Your task to perform on an android device: change notification settings in the gmail app Image 0: 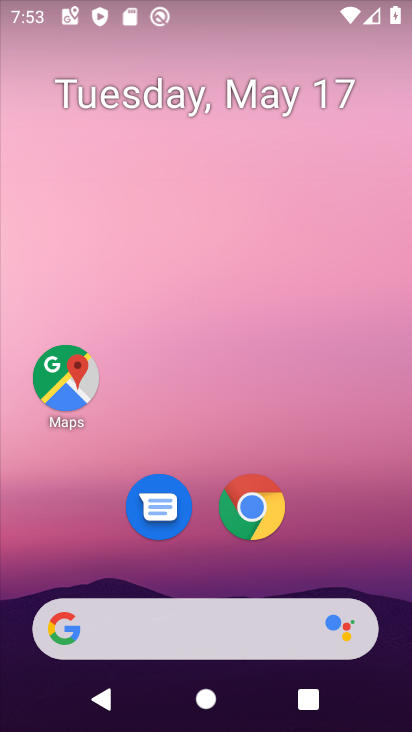
Step 0: drag from (264, 510) to (111, 116)
Your task to perform on an android device: change notification settings in the gmail app Image 1: 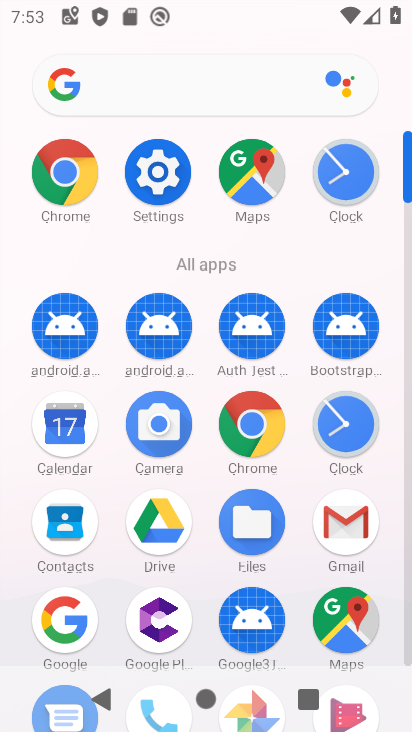
Step 1: click (339, 525)
Your task to perform on an android device: change notification settings in the gmail app Image 2: 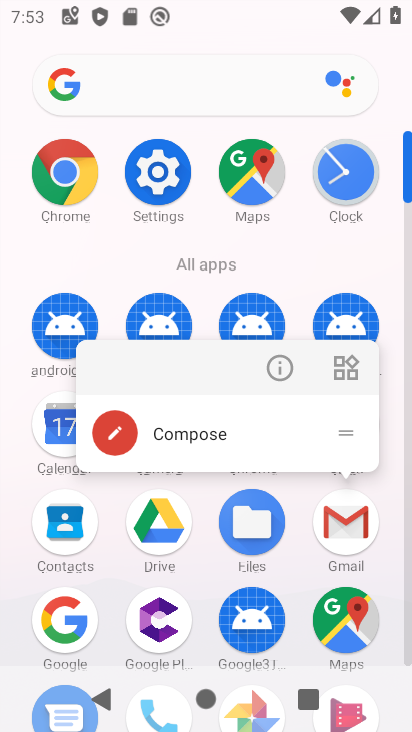
Step 2: click (339, 520)
Your task to perform on an android device: change notification settings in the gmail app Image 3: 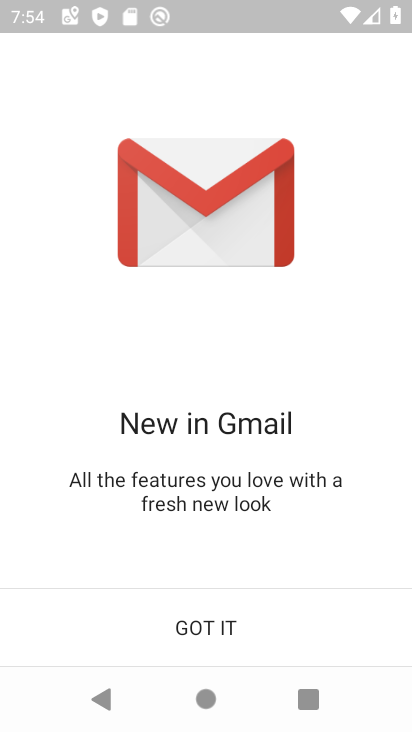
Step 3: click (189, 616)
Your task to perform on an android device: change notification settings in the gmail app Image 4: 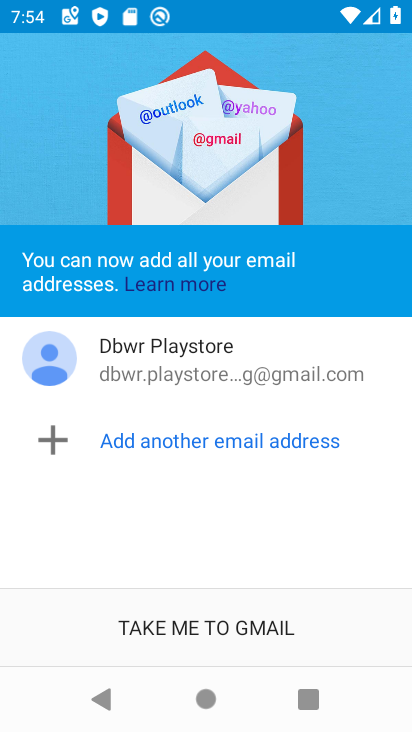
Step 4: click (220, 628)
Your task to perform on an android device: change notification settings in the gmail app Image 5: 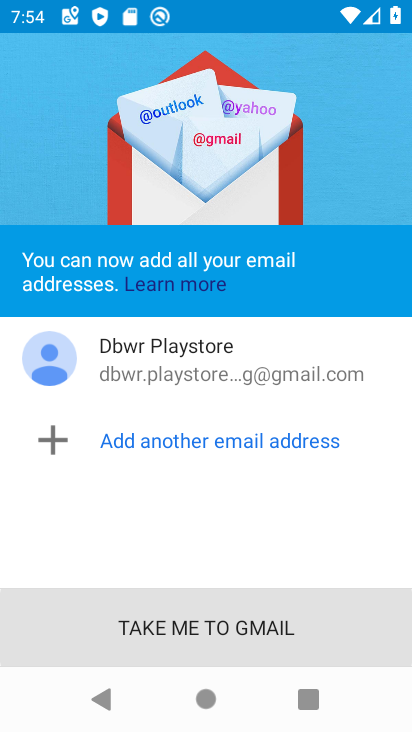
Step 5: click (220, 628)
Your task to perform on an android device: change notification settings in the gmail app Image 6: 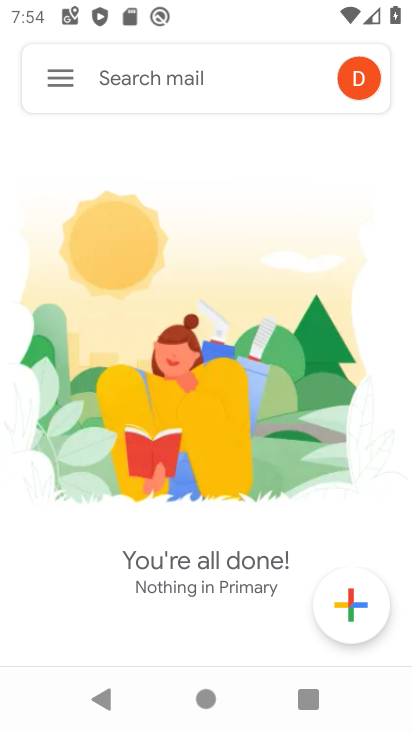
Step 6: click (59, 79)
Your task to perform on an android device: change notification settings in the gmail app Image 7: 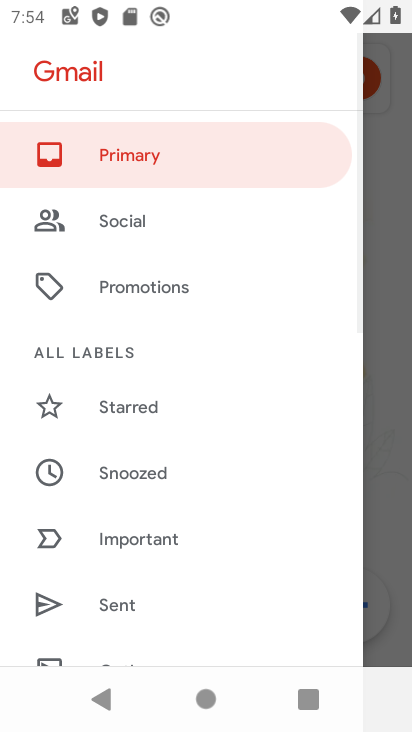
Step 7: drag from (191, 567) to (213, 169)
Your task to perform on an android device: change notification settings in the gmail app Image 8: 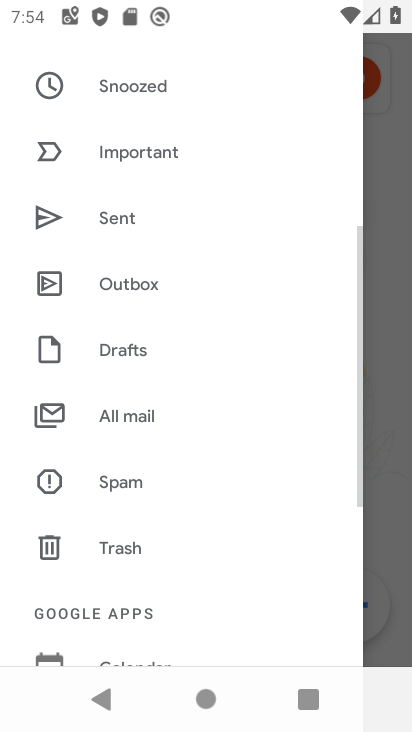
Step 8: drag from (159, 502) to (231, 1)
Your task to perform on an android device: change notification settings in the gmail app Image 9: 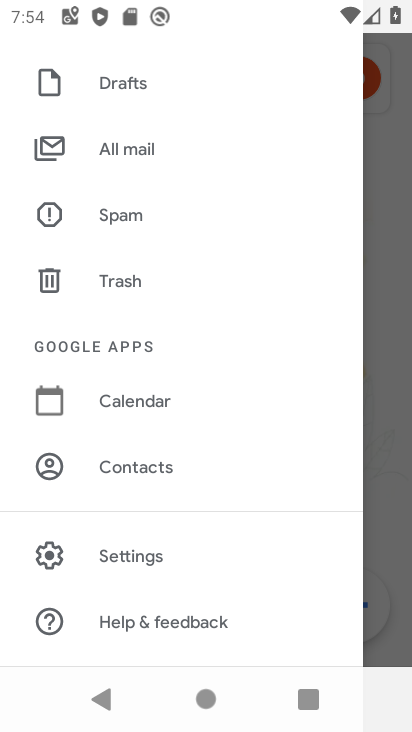
Step 9: click (129, 546)
Your task to perform on an android device: change notification settings in the gmail app Image 10: 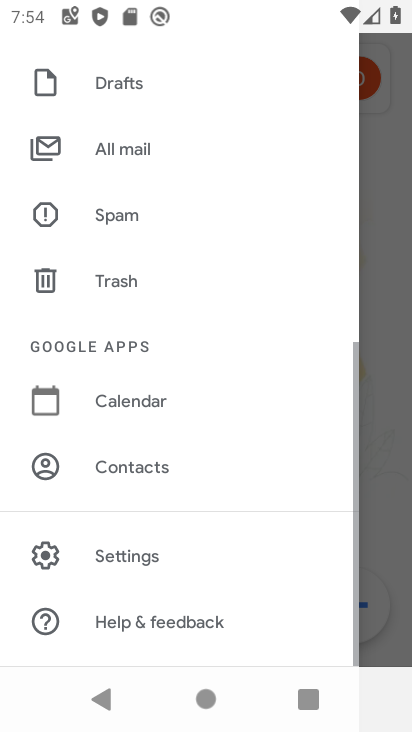
Step 10: click (129, 546)
Your task to perform on an android device: change notification settings in the gmail app Image 11: 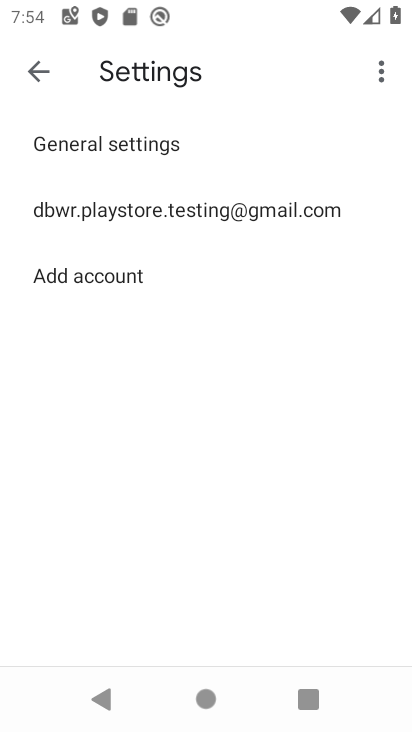
Step 11: click (120, 213)
Your task to perform on an android device: change notification settings in the gmail app Image 12: 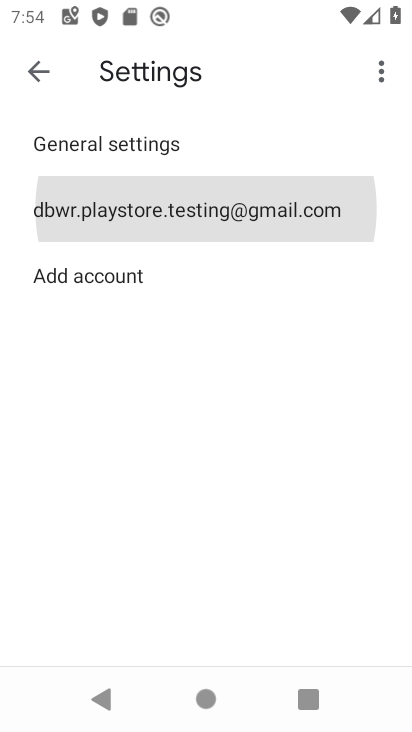
Step 12: click (120, 213)
Your task to perform on an android device: change notification settings in the gmail app Image 13: 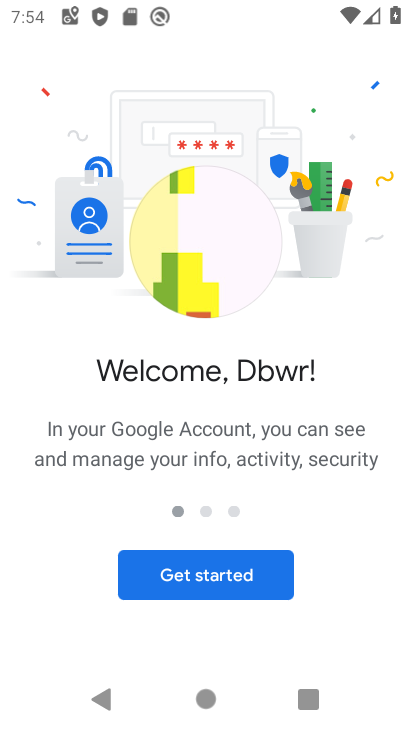
Step 13: click (195, 577)
Your task to perform on an android device: change notification settings in the gmail app Image 14: 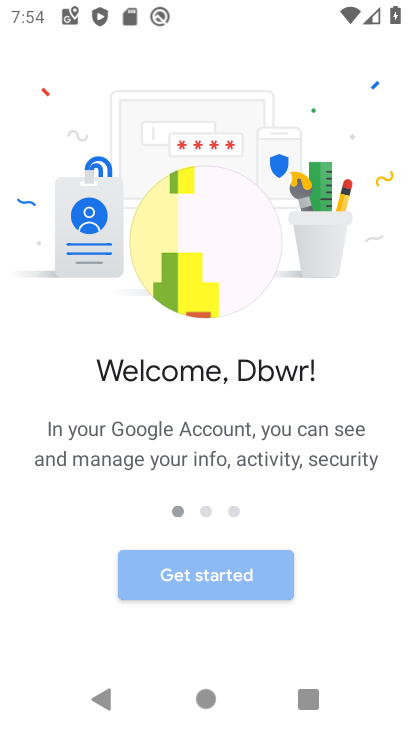
Step 14: click (197, 583)
Your task to perform on an android device: change notification settings in the gmail app Image 15: 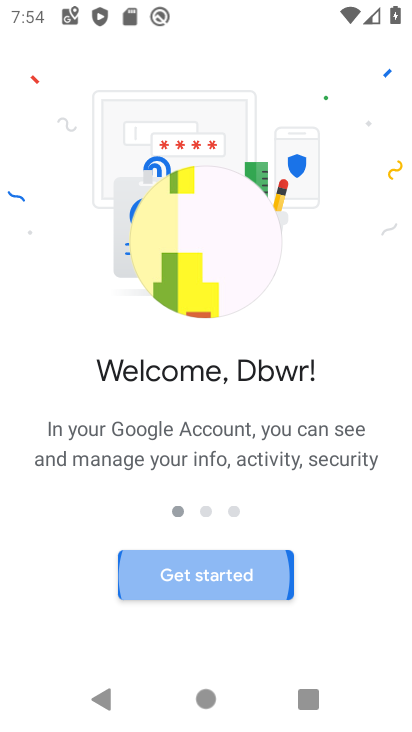
Step 15: click (198, 583)
Your task to perform on an android device: change notification settings in the gmail app Image 16: 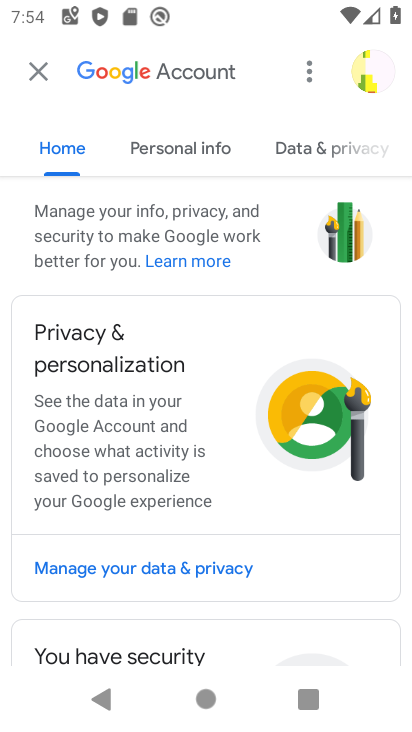
Step 16: click (36, 62)
Your task to perform on an android device: change notification settings in the gmail app Image 17: 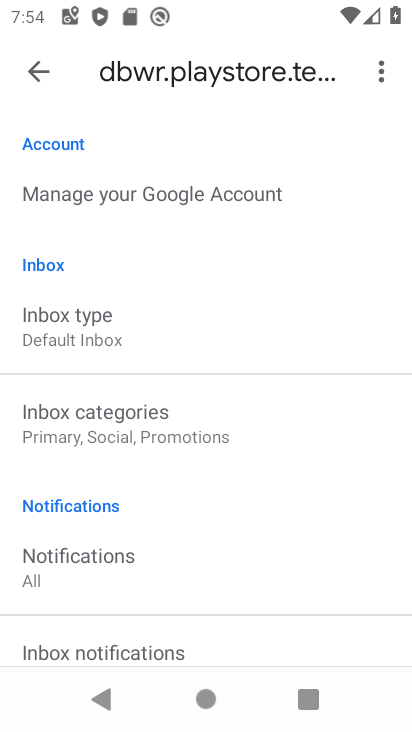
Step 17: click (92, 564)
Your task to perform on an android device: change notification settings in the gmail app Image 18: 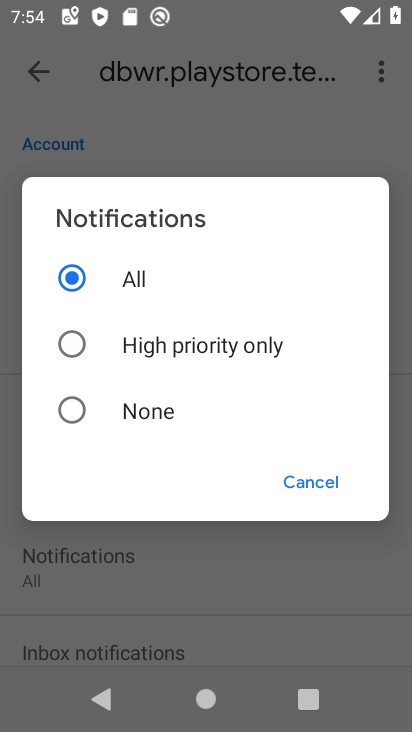
Step 18: click (65, 338)
Your task to perform on an android device: change notification settings in the gmail app Image 19: 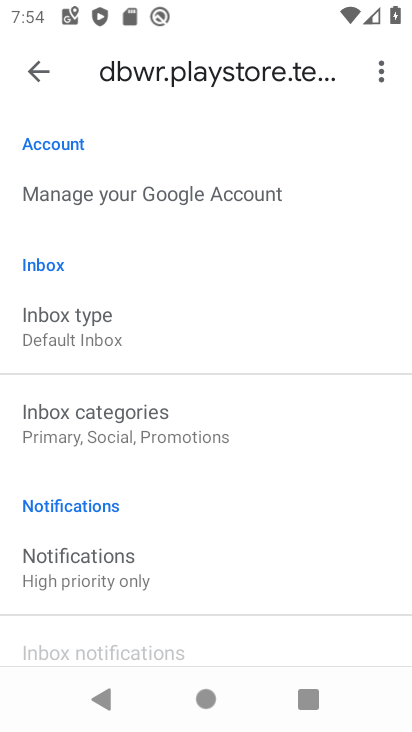
Step 19: task complete